Your task to perform on an android device: turn off sleep mode Image 0: 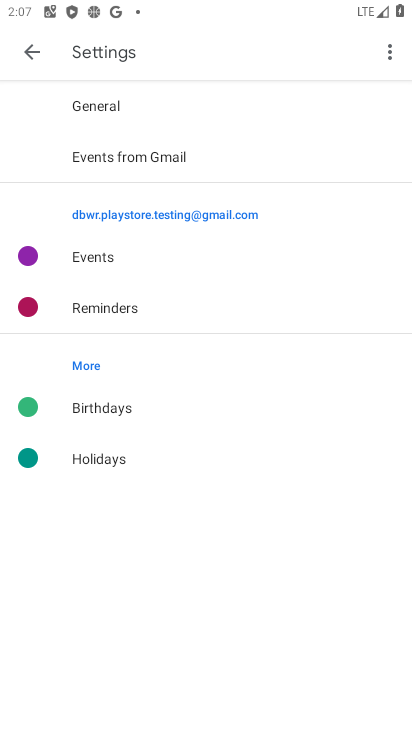
Step 0: drag from (364, 12) to (329, 340)
Your task to perform on an android device: turn off sleep mode Image 1: 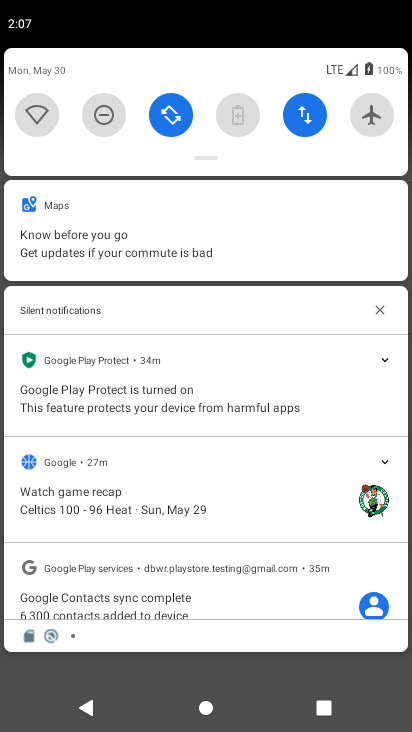
Step 1: drag from (216, 152) to (161, 549)
Your task to perform on an android device: turn off sleep mode Image 2: 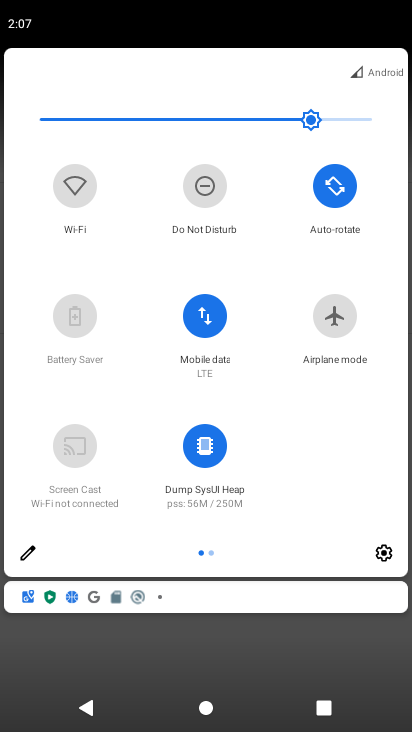
Step 2: click (30, 545)
Your task to perform on an android device: turn off sleep mode Image 3: 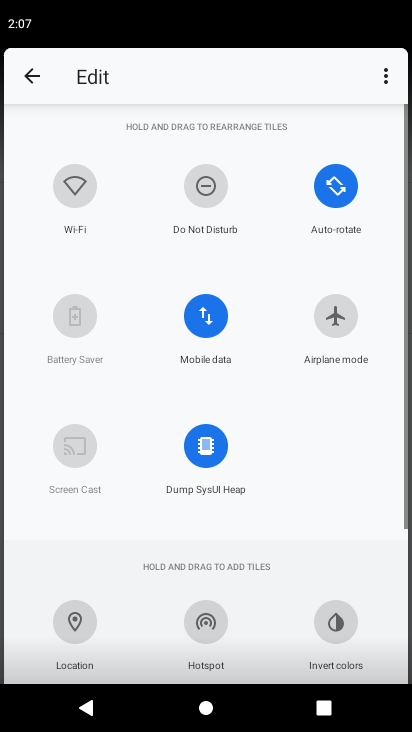
Step 3: task complete